Your task to perform on an android device: open app "AliExpress" (install if not already installed) Image 0: 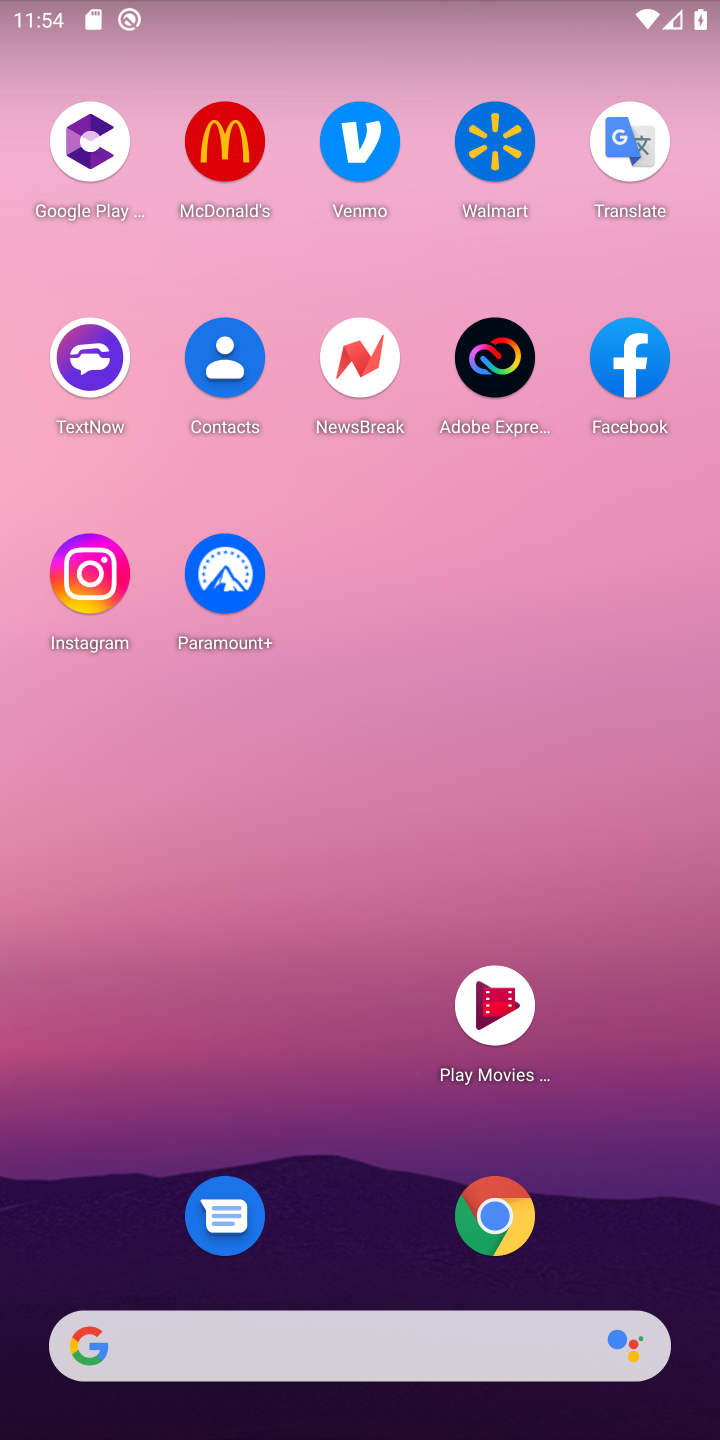
Step 0: drag from (655, 1163) to (588, 0)
Your task to perform on an android device: open app "AliExpress" (install if not already installed) Image 1: 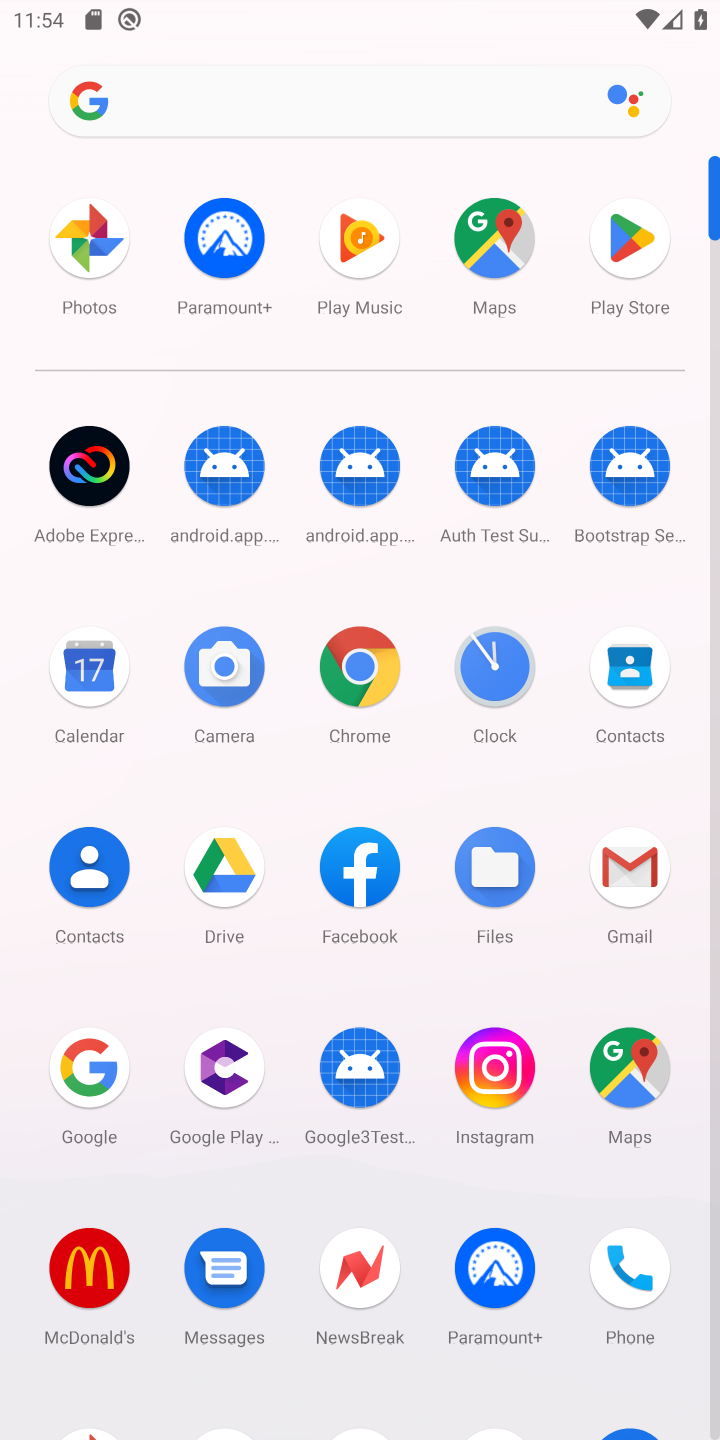
Step 1: click (627, 262)
Your task to perform on an android device: open app "AliExpress" (install if not already installed) Image 2: 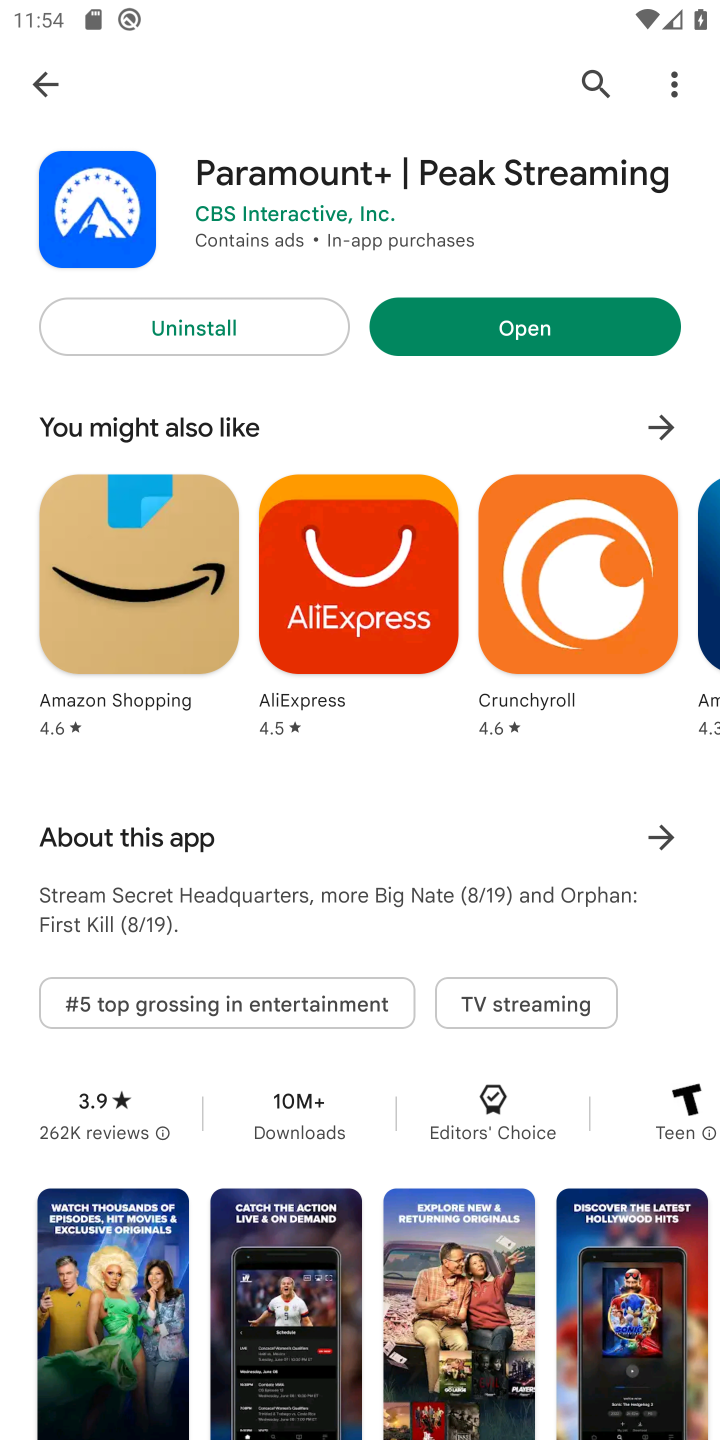
Step 2: click (590, 66)
Your task to perform on an android device: open app "AliExpress" (install if not already installed) Image 3: 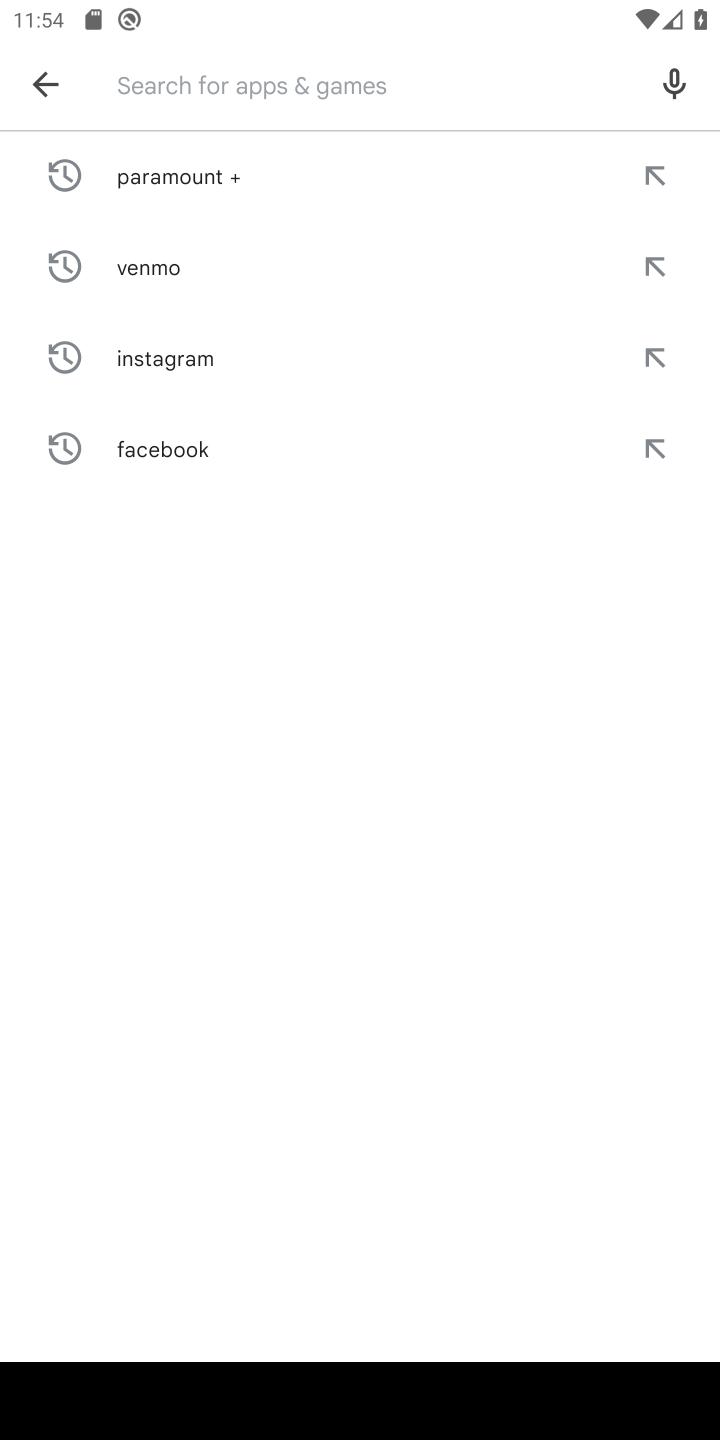
Step 3: type "aliexpress"
Your task to perform on an android device: open app "AliExpress" (install if not already installed) Image 4: 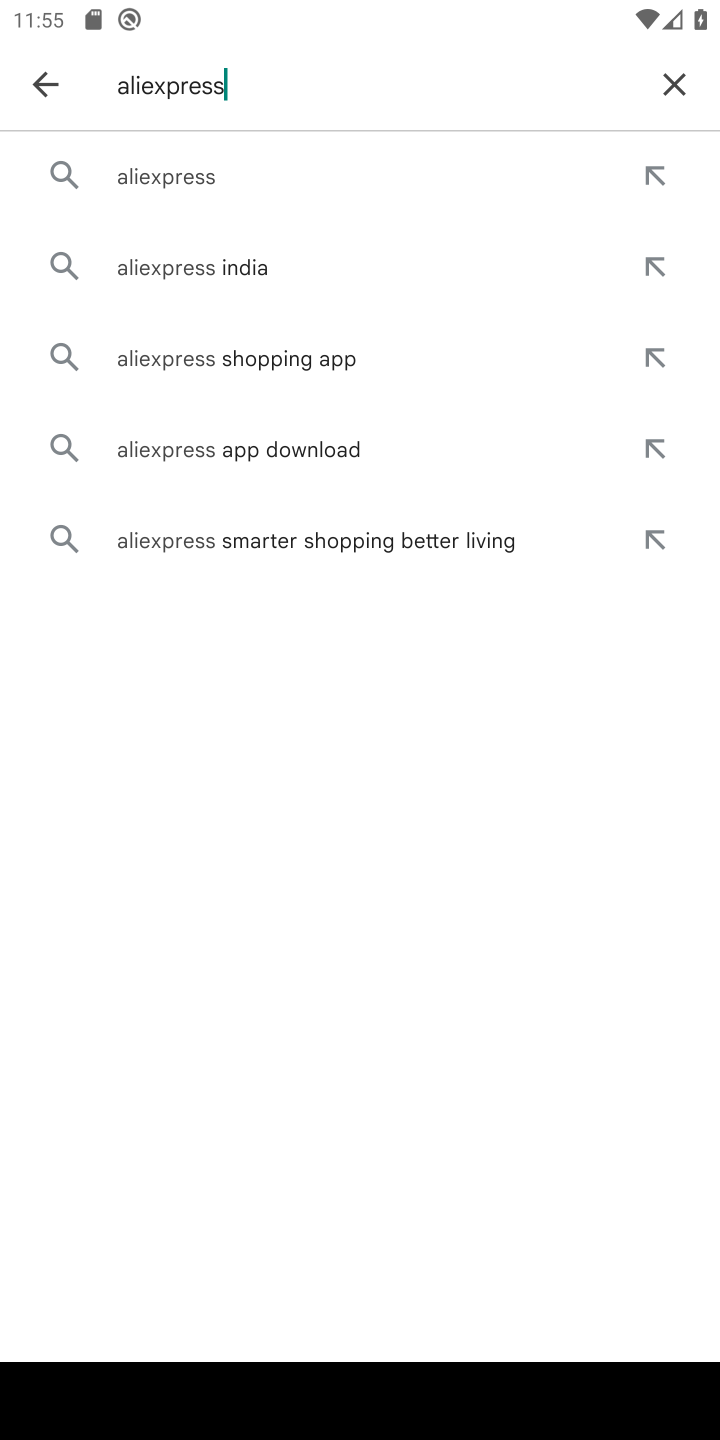
Step 4: click (209, 183)
Your task to perform on an android device: open app "AliExpress" (install if not already installed) Image 5: 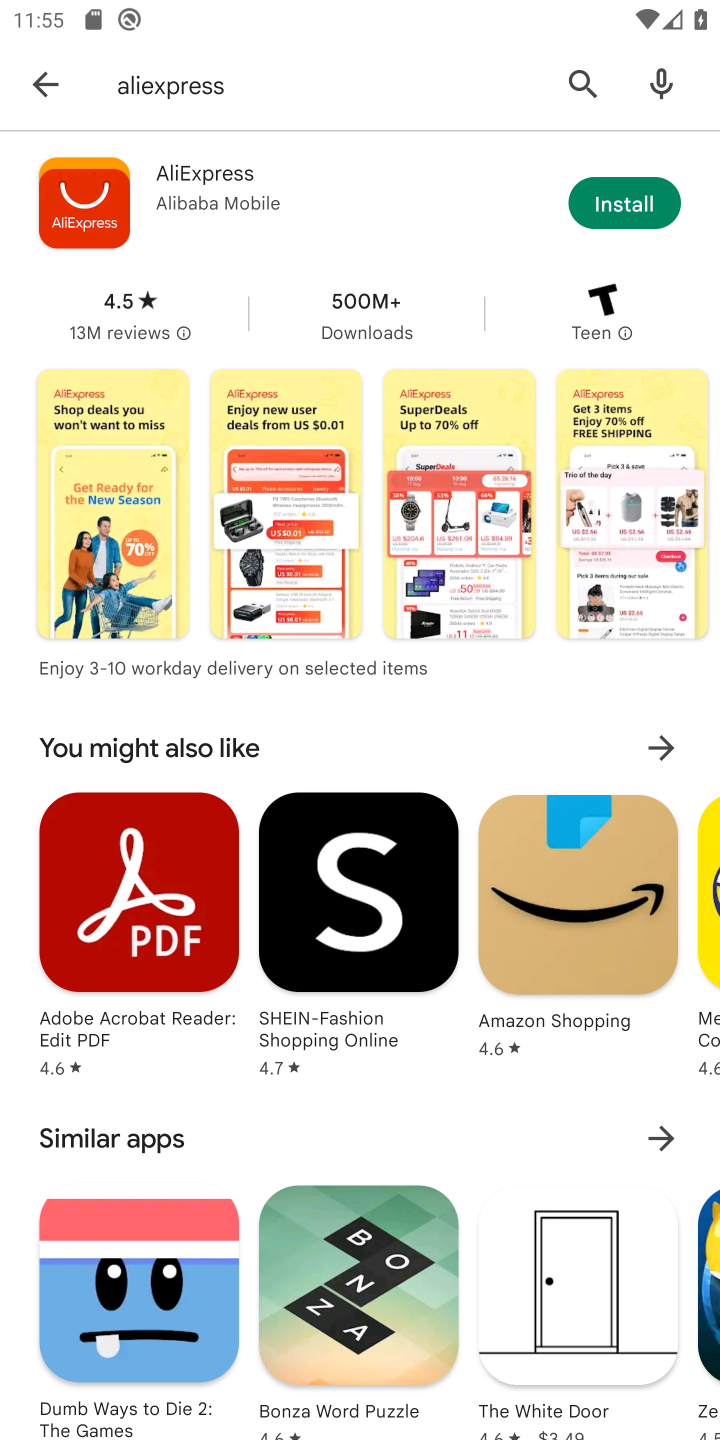
Step 5: click (649, 198)
Your task to perform on an android device: open app "AliExpress" (install if not already installed) Image 6: 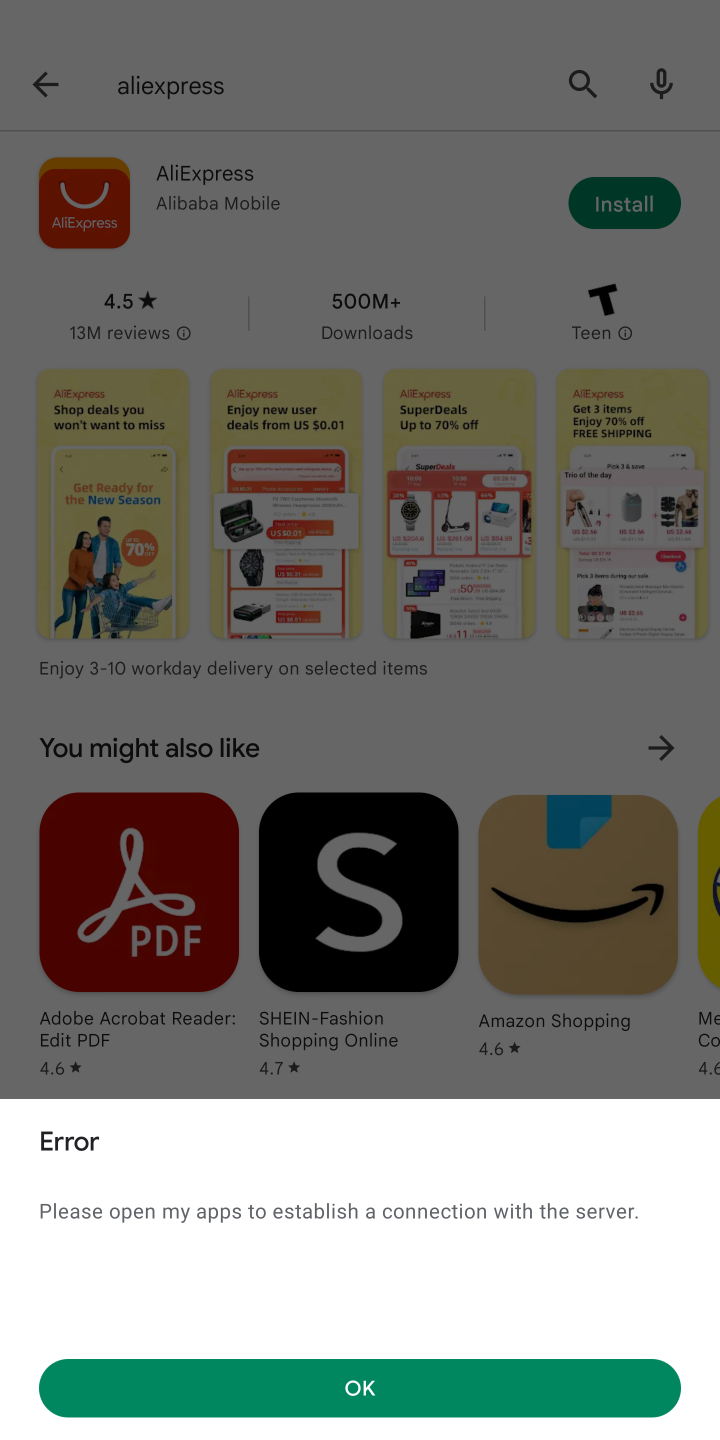
Step 6: click (588, 1382)
Your task to perform on an android device: open app "AliExpress" (install if not already installed) Image 7: 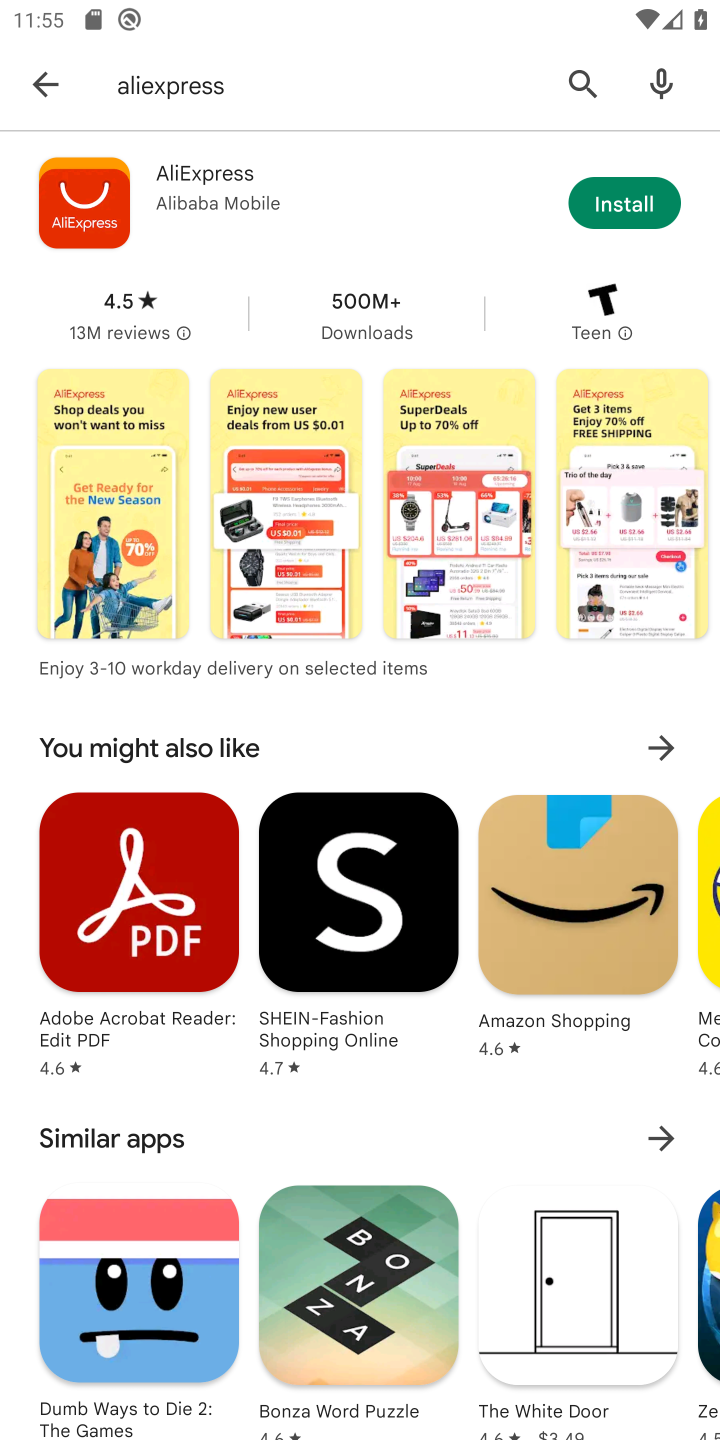
Step 7: click (631, 208)
Your task to perform on an android device: open app "AliExpress" (install if not already installed) Image 8: 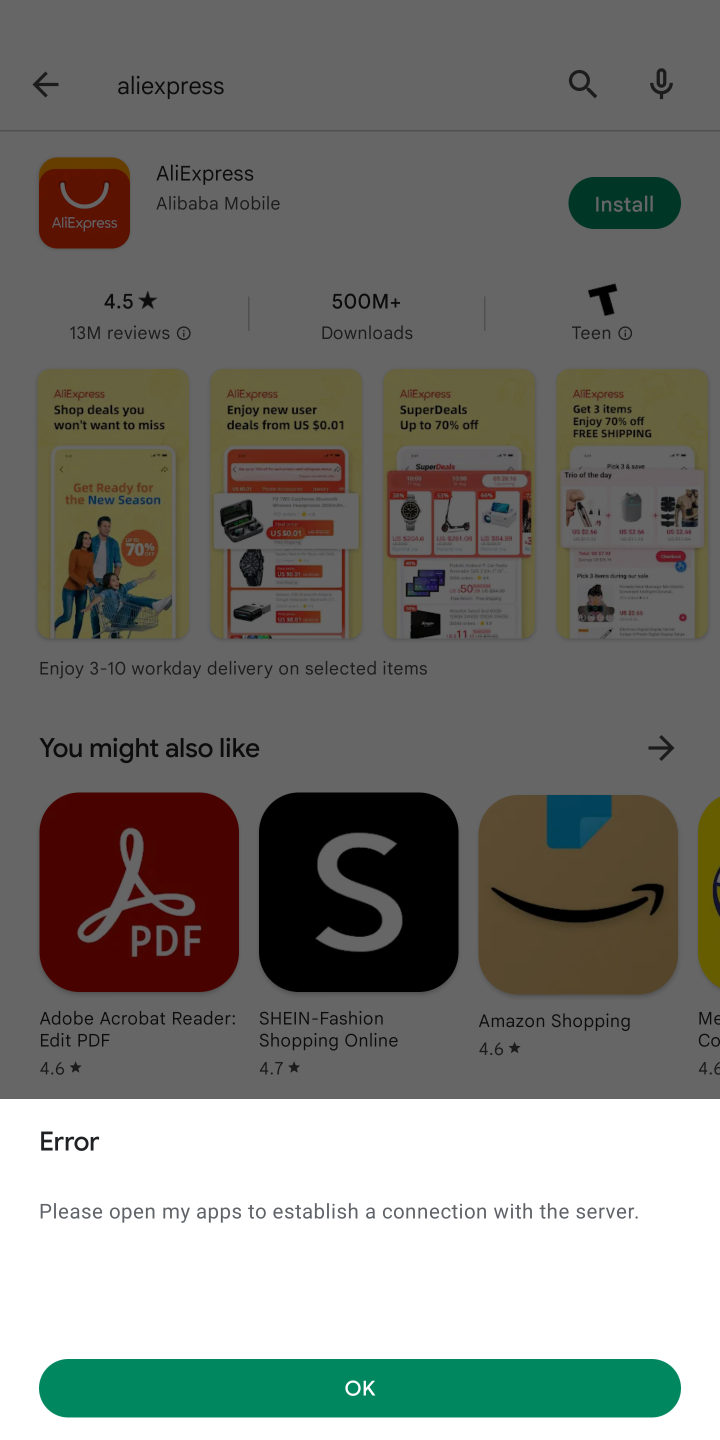
Step 8: click (545, 1380)
Your task to perform on an android device: open app "AliExpress" (install if not already installed) Image 9: 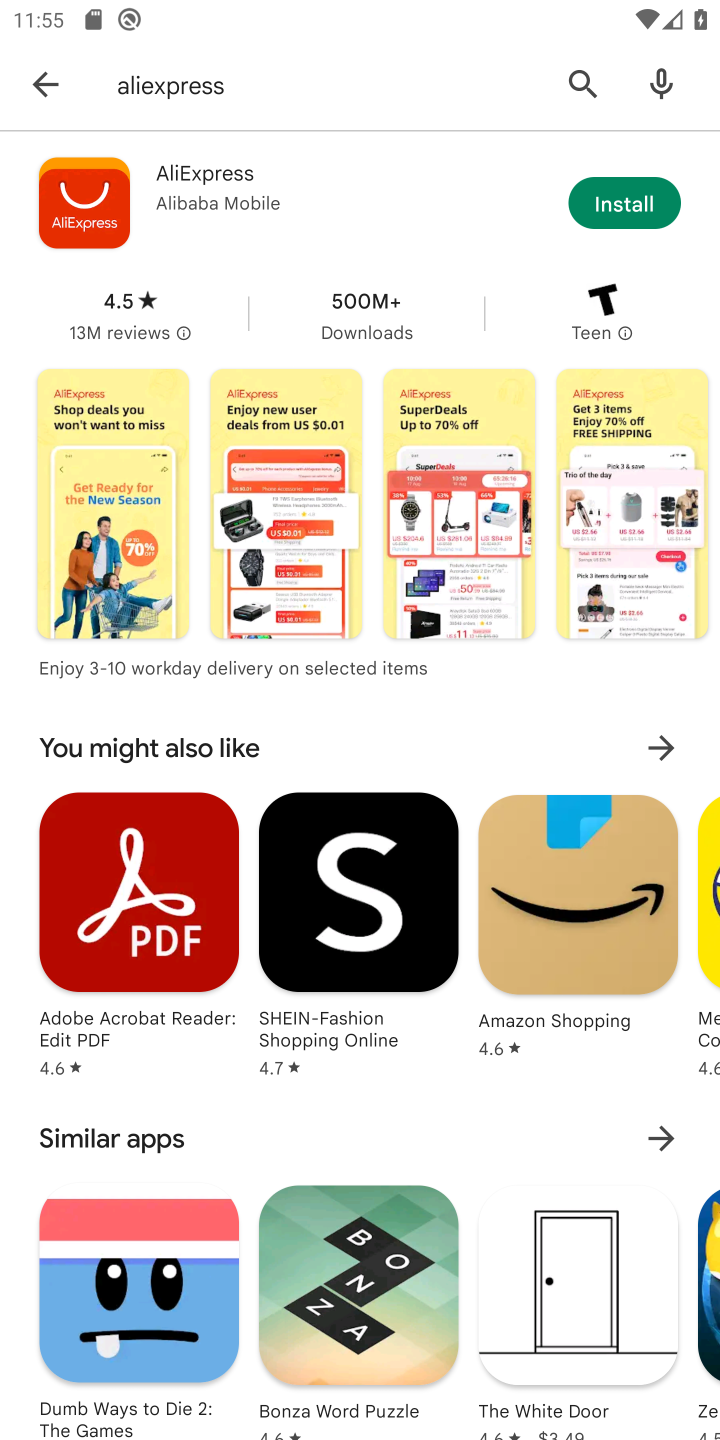
Step 9: click (641, 198)
Your task to perform on an android device: open app "AliExpress" (install if not already installed) Image 10: 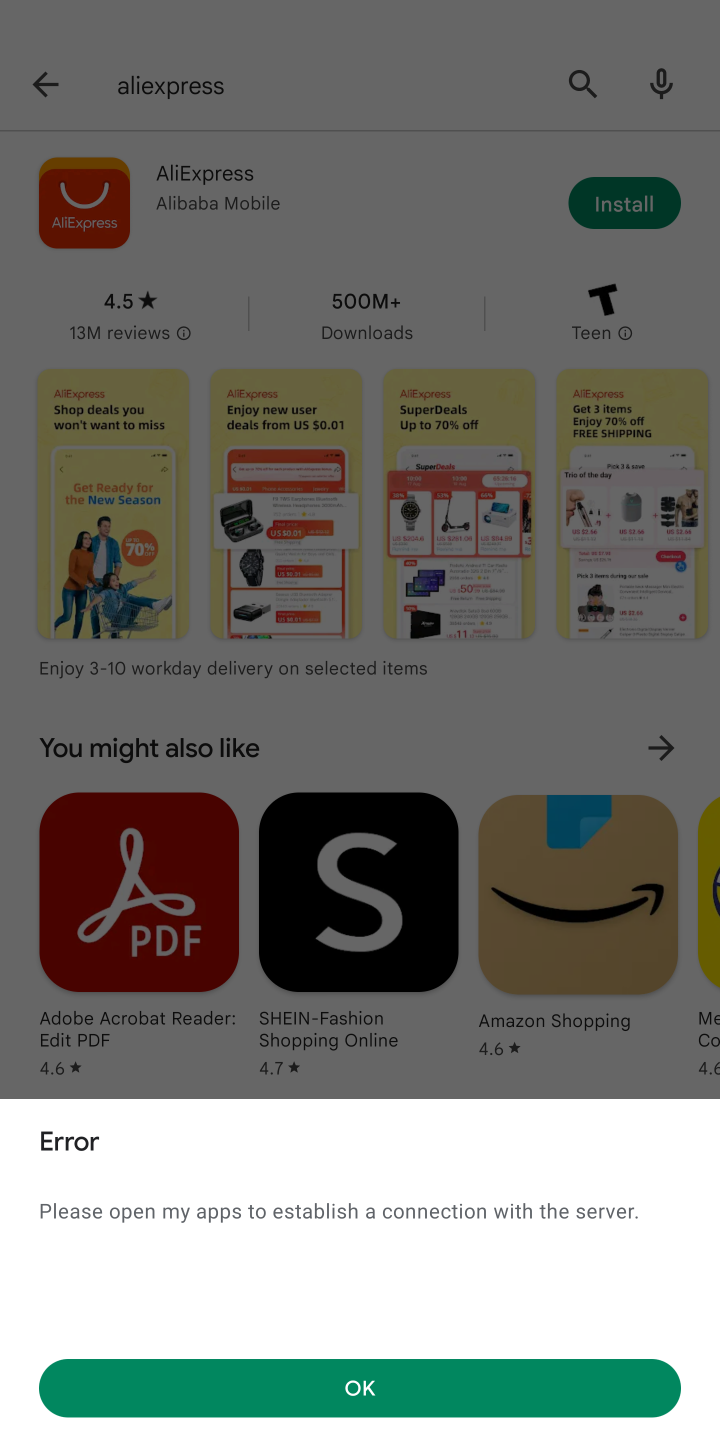
Step 10: click (621, 1393)
Your task to perform on an android device: open app "AliExpress" (install if not already installed) Image 11: 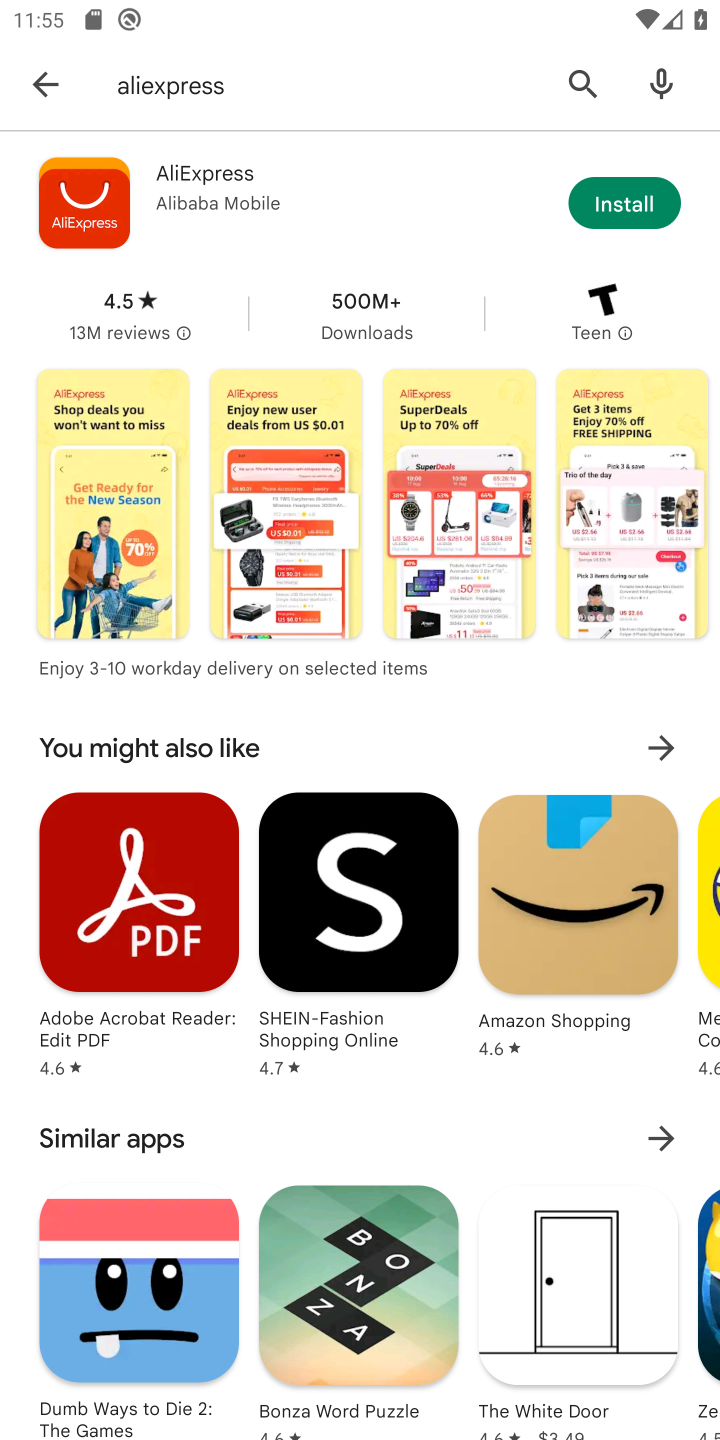
Step 11: task complete